Your task to perform on an android device: turn on wifi Image 0: 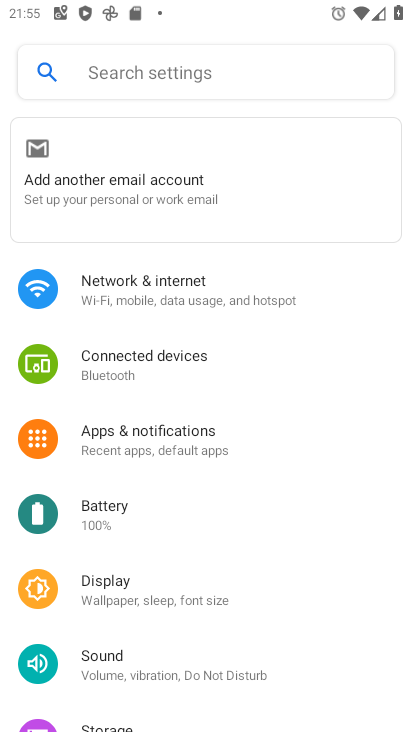
Step 0: press home button
Your task to perform on an android device: turn on wifi Image 1: 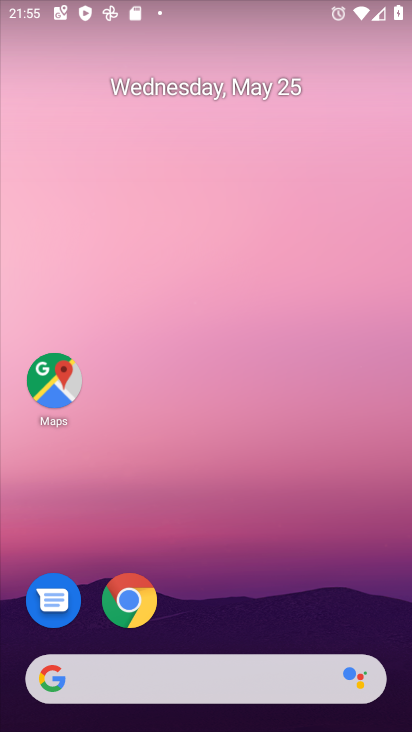
Step 1: drag from (347, 589) to (316, 150)
Your task to perform on an android device: turn on wifi Image 2: 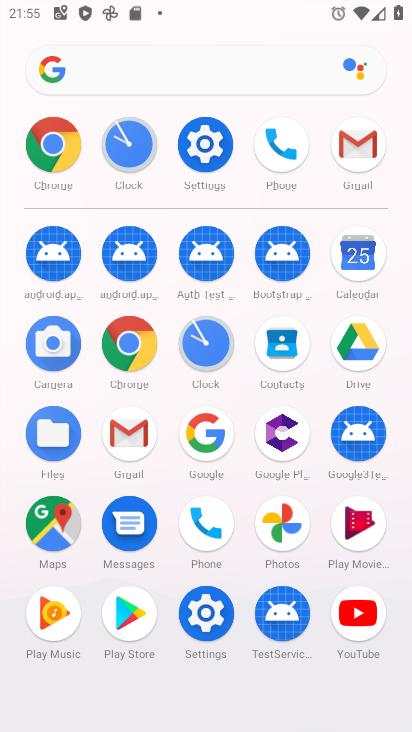
Step 2: click (182, 156)
Your task to perform on an android device: turn on wifi Image 3: 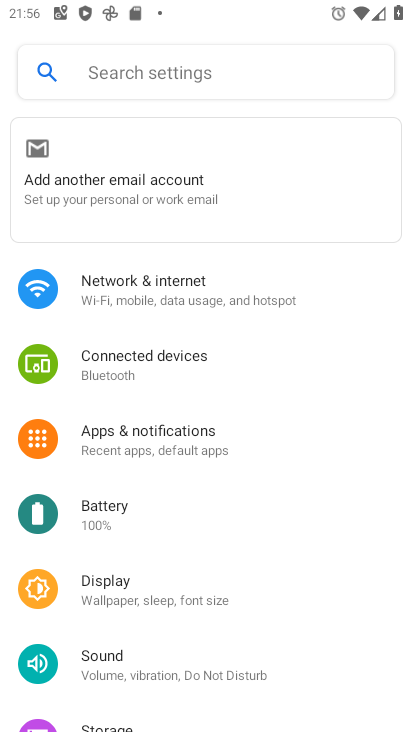
Step 3: click (173, 291)
Your task to perform on an android device: turn on wifi Image 4: 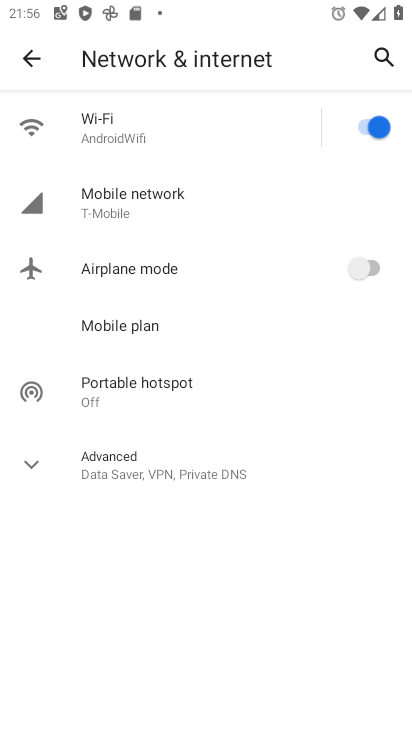
Step 4: task complete